Your task to perform on an android device: Open Google Maps and go to "Timeline" Image 0: 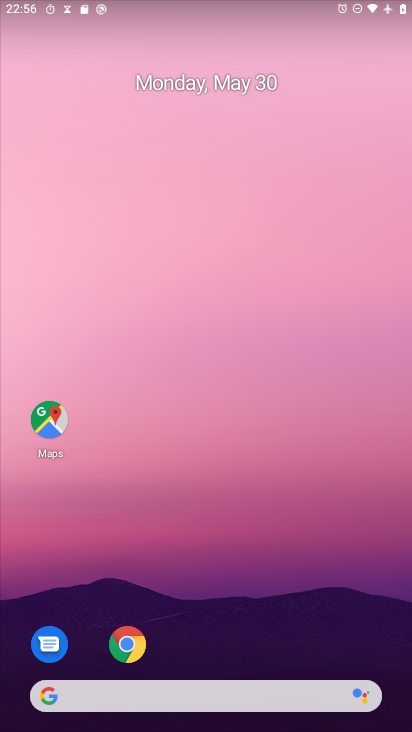
Step 0: click (48, 424)
Your task to perform on an android device: Open Google Maps and go to "Timeline" Image 1: 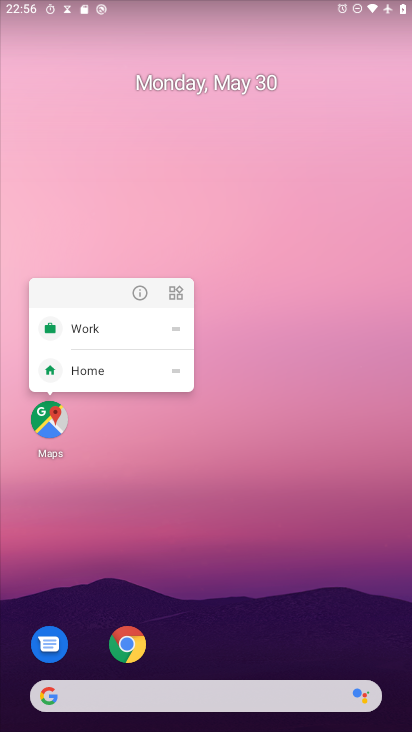
Step 1: click (48, 424)
Your task to perform on an android device: Open Google Maps and go to "Timeline" Image 2: 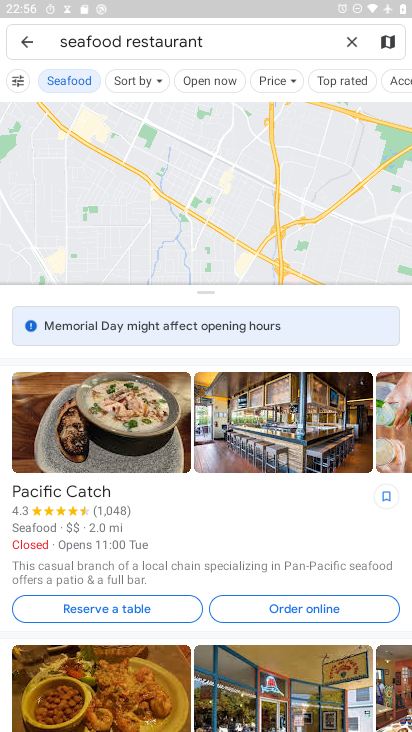
Step 2: click (348, 46)
Your task to perform on an android device: Open Google Maps and go to "Timeline" Image 3: 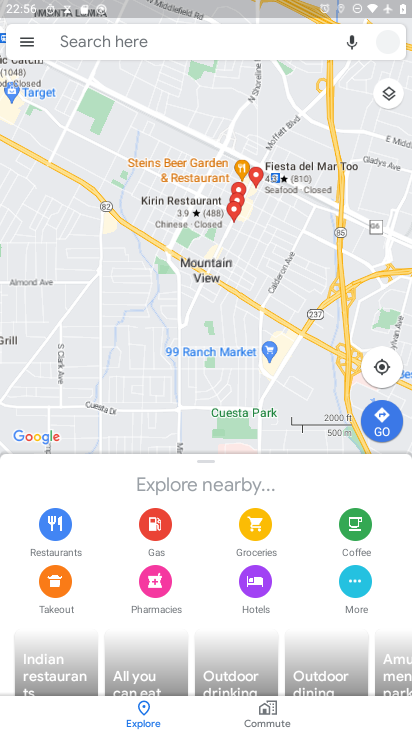
Step 3: click (26, 42)
Your task to perform on an android device: Open Google Maps and go to "Timeline" Image 4: 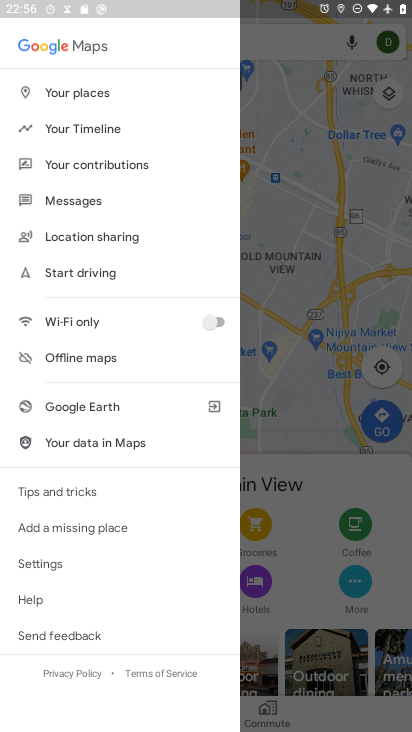
Step 4: click (103, 127)
Your task to perform on an android device: Open Google Maps and go to "Timeline" Image 5: 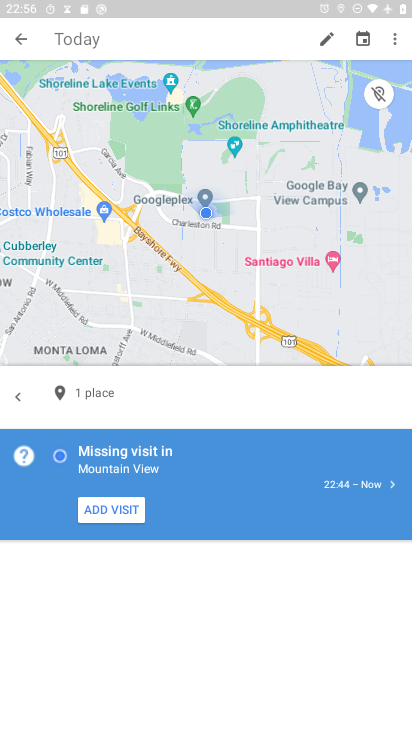
Step 5: task complete